Your task to perform on an android device: set default search engine in the chrome app Image 0: 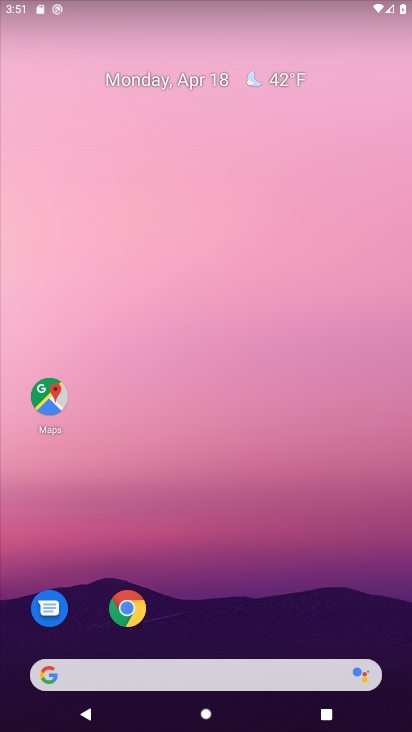
Step 0: click (142, 609)
Your task to perform on an android device: set default search engine in the chrome app Image 1: 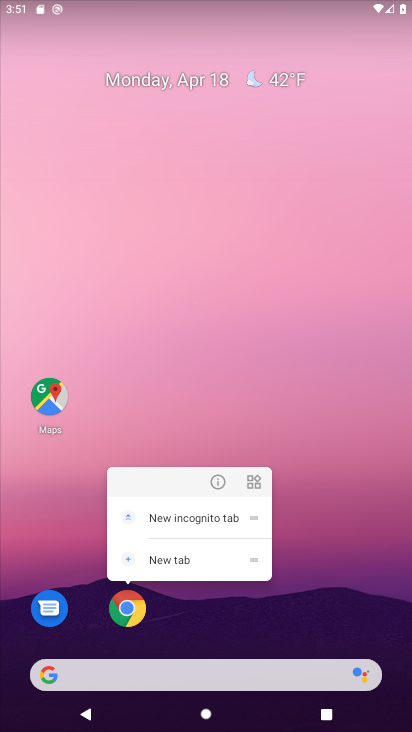
Step 1: click (122, 595)
Your task to perform on an android device: set default search engine in the chrome app Image 2: 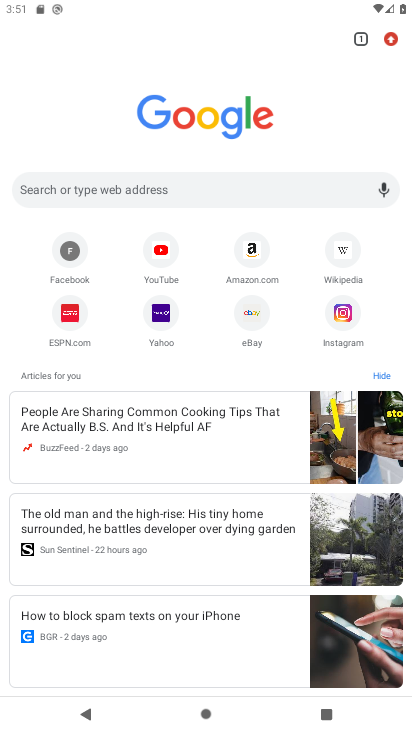
Step 2: drag from (285, 70) to (329, 473)
Your task to perform on an android device: set default search engine in the chrome app Image 3: 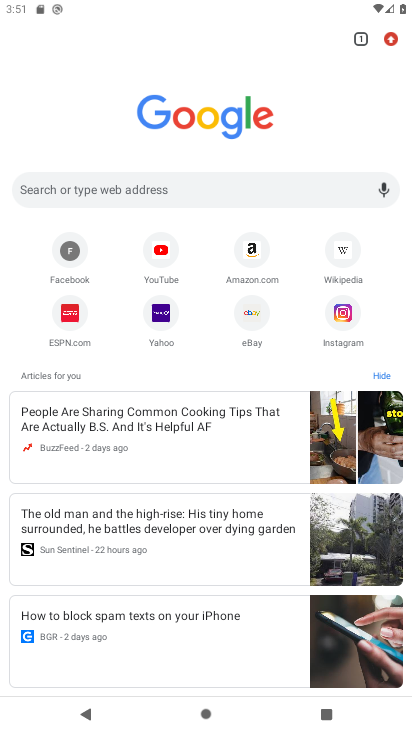
Step 3: click (388, 36)
Your task to perform on an android device: set default search engine in the chrome app Image 4: 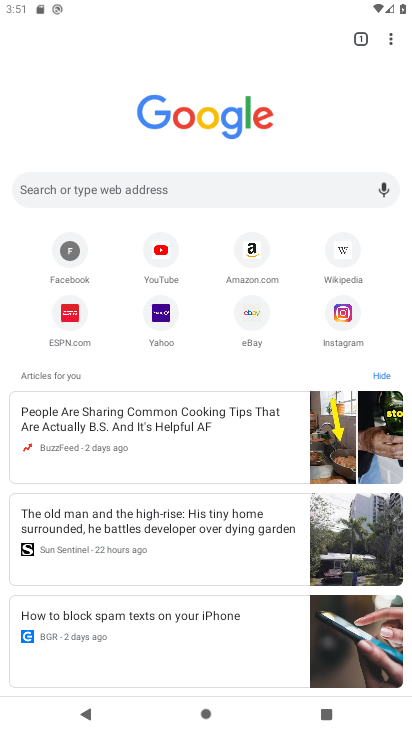
Step 4: click (390, 36)
Your task to perform on an android device: set default search engine in the chrome app Image 5: 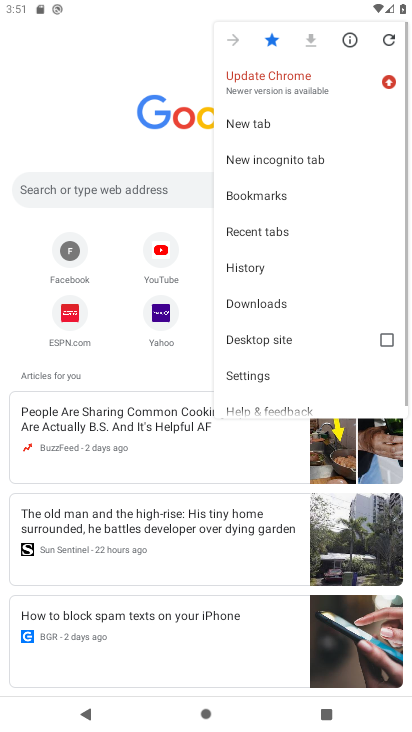
Step 5: click (390, 36)
Your task to perform on an android device: set default search engine in the chrome app Image 6: 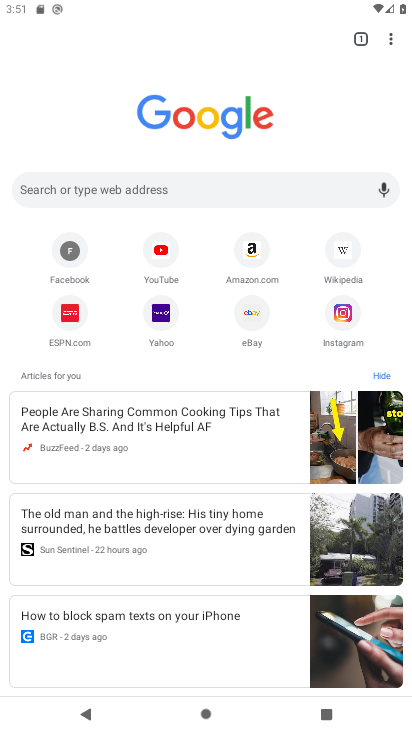
Step 6: click (393, 34)
Your task to perform on an android device: set default search engine in the chrome app Image 7: 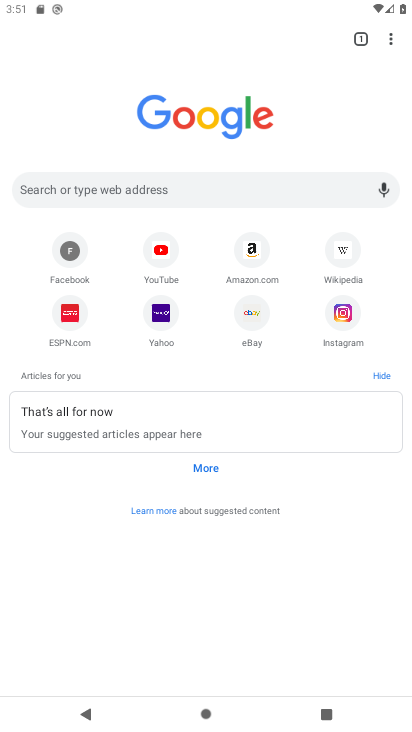
Step 7: click (390, 33)
Your task to perform on an android device: set default search engine in the chrome app Image 8: 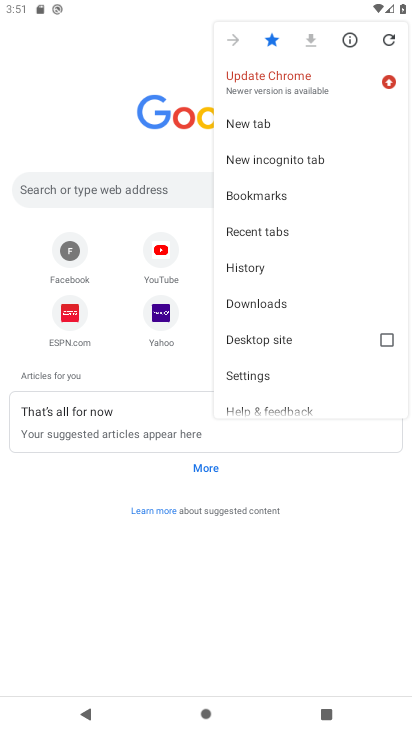
Step 8: click (256, 369)
Your task to perform on an android device: set default search engine in the chrome app Image 9: 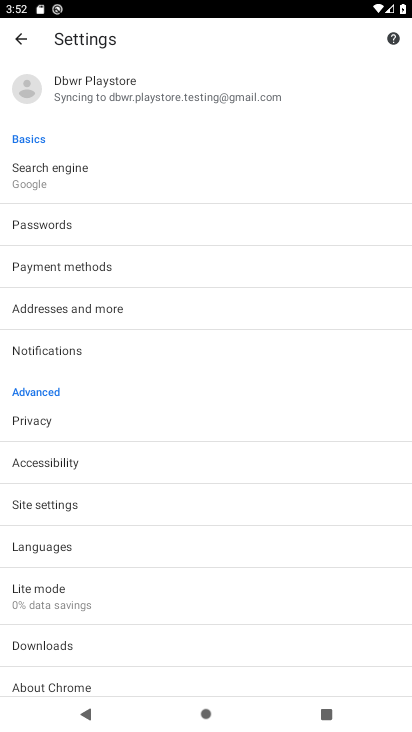
Step 9: click (42, 509)
Your task to perform on an android device: set default search engine in the chrome app Image 10: 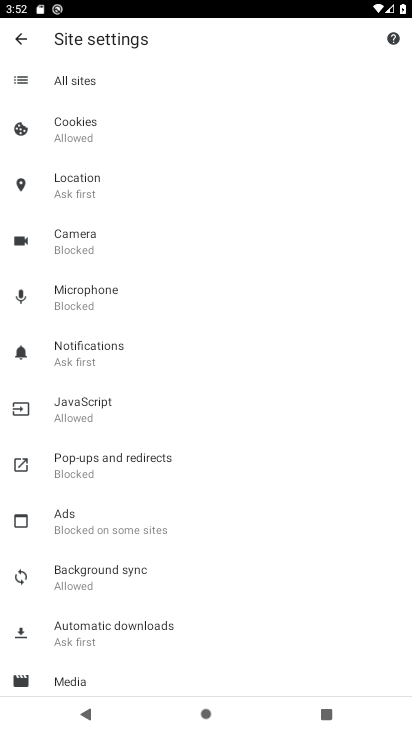
Step 10: press back button
Your task to perform on an android device: set default search engine in the chrome app Image 11: 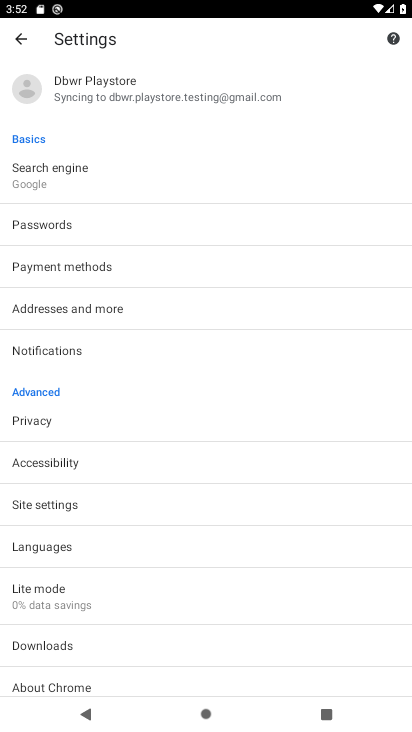
Step 11: click (89, 169)
Your task to perform on an android device: set default search engine in the chrome app Image 12: 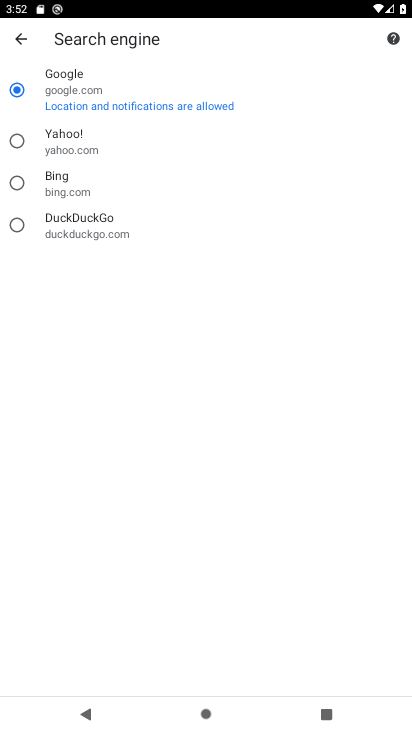
Step 12: task complete